Your task to perform on an android device: Go to battery settings Image 0: 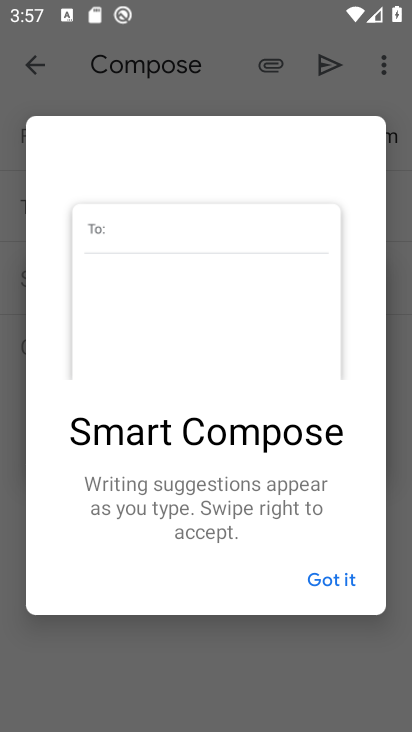
Step 0: click (336, 579)
Your task to perform on an android device: Go to battery settings Image 1: 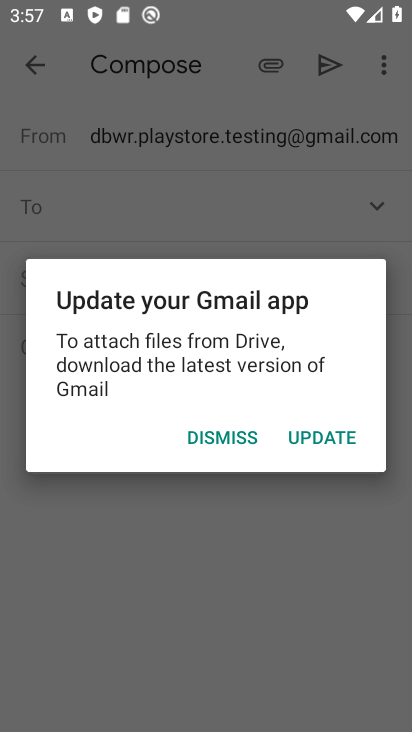
Step 1: press home button
Your task to perform on an android device: Go to battery settings Image 2: 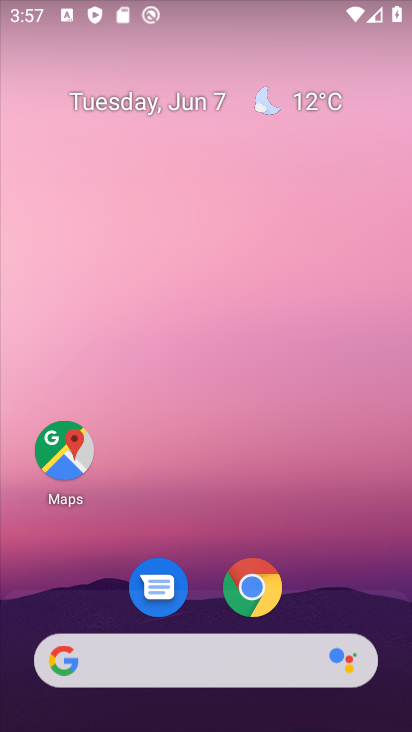
Step 2: drag from (190, 542) to (212, 270)
Your task to perform on an android device: Go to battery settings Image 3: 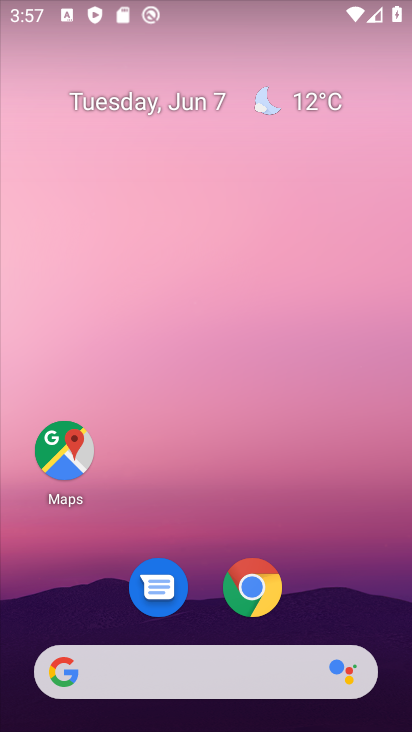
Step 3: drag from (271, 573) to (281, 185)
Your task to perform on an android device: Go to battery settings Image 4: 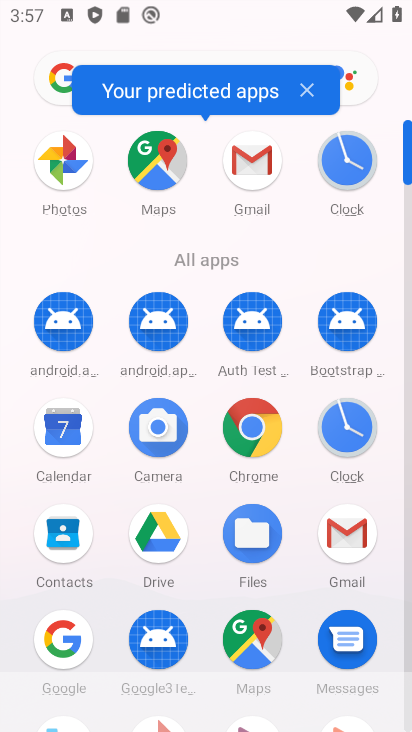
Step 4: drag from (212, 480) to (201, 136)
Your task to perform on an android device: Go to battery settings Image 5: 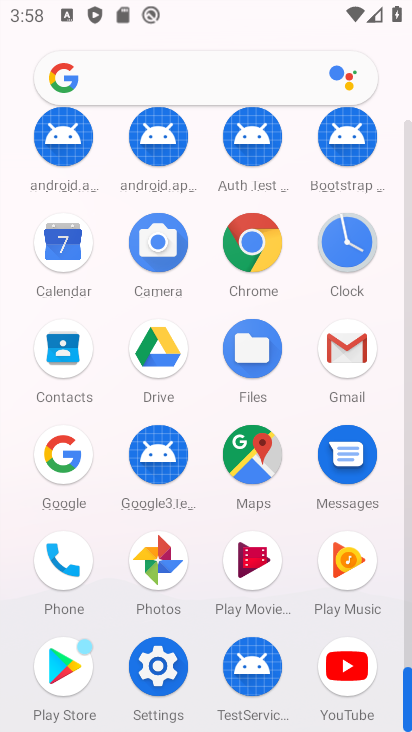
Step 5: click (168, 673)
Your task to perform on an android device: Go to battery settings Image 6: 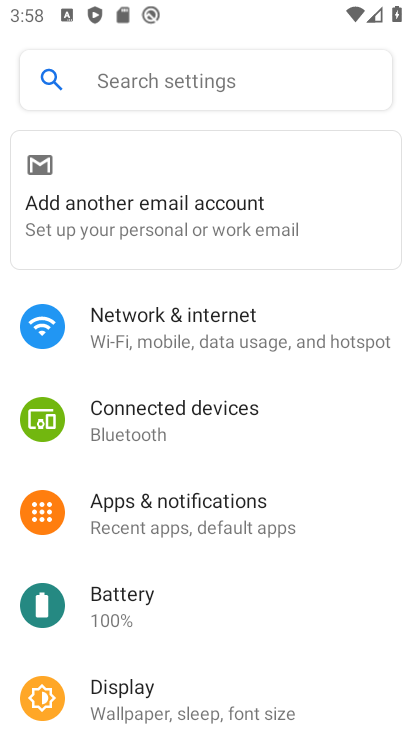
Step 6: click (98, 590)
Your task to perform on an android device: Go to battery settings Image 7: 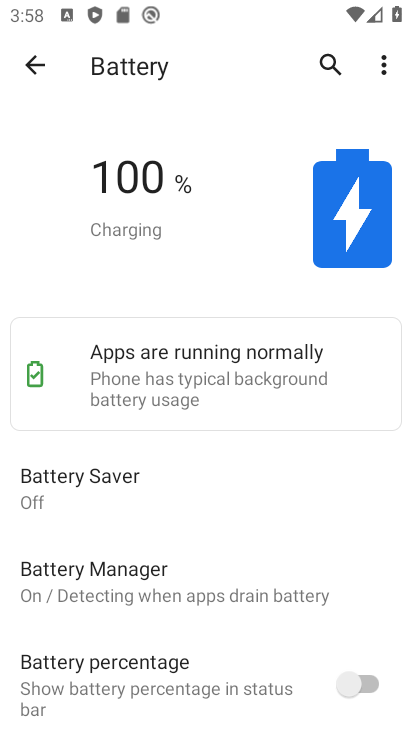
Step 7: task complete